Your task to perform on an android device: toggle data saver in the chrome app Image 0: 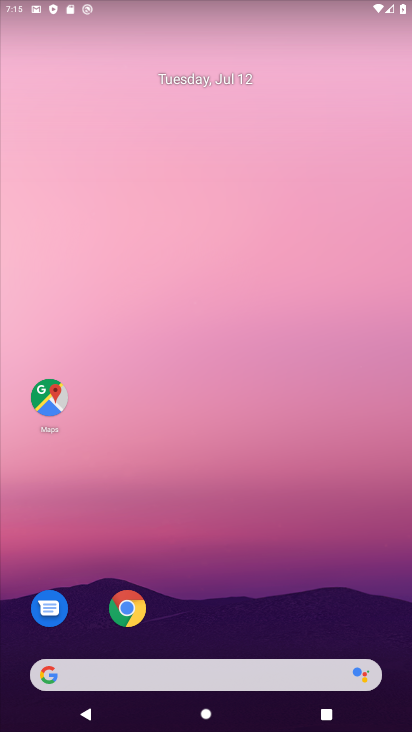
Step 0: click (125, 605)
Your task to perform on an android device: toggle data saver in the chrome app Image 1: 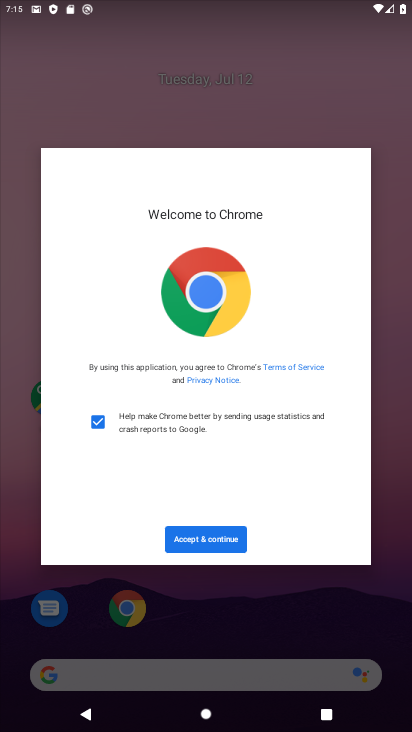
Step 1: click (216, 539)
Your task to perform on an android device: toggle data saver in the chrome app Image 2: 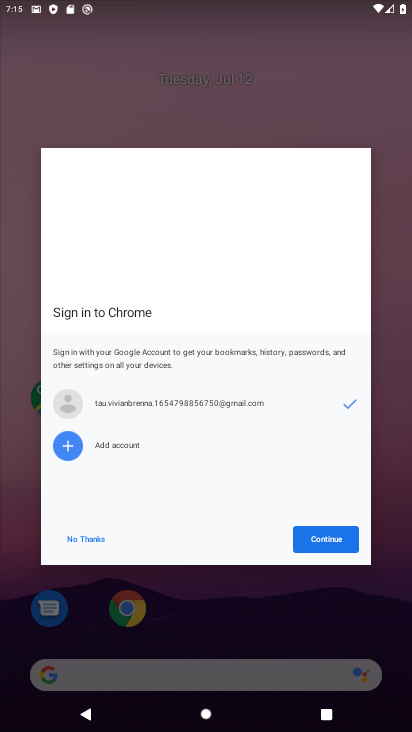
Step 2: click (347, 545)
Your task to perform on an android device: toggle data saver in the chrome app Image 3: 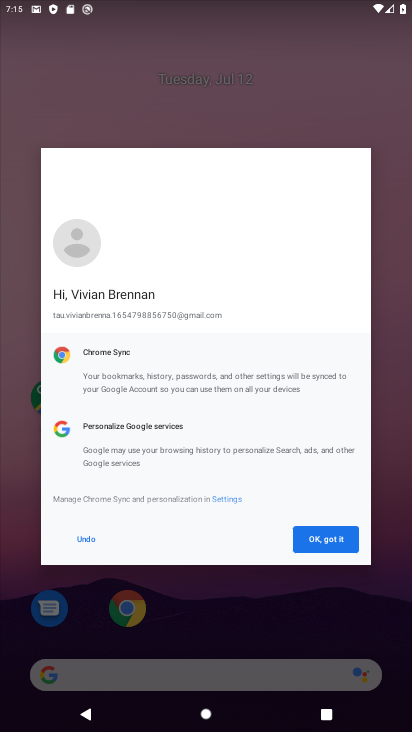
Step 3: click (347, 545)
Your task to perform on an android device: toggle data saver in the chrome app Image 4: 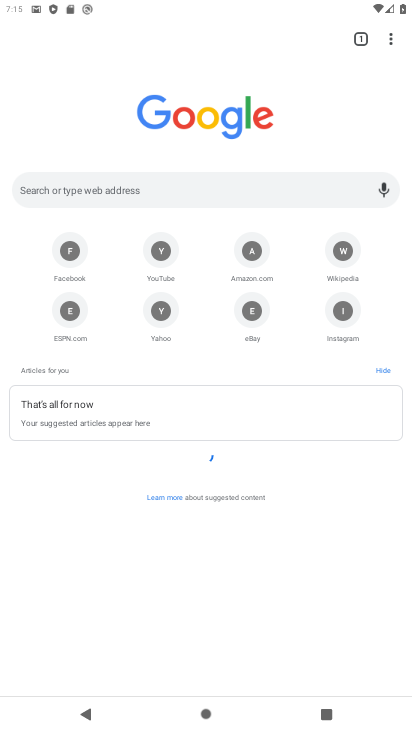
Step 4: drag from (391, 39) to (298, 325)
Your task to perform on an android device: toggle data saver in the chrome app Image 5: 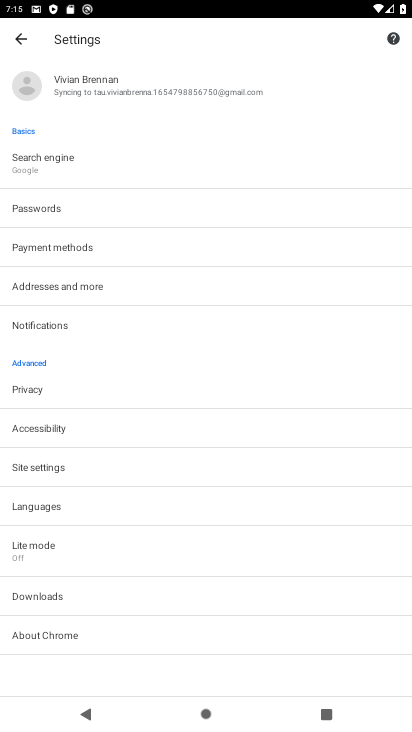
Step 5: click (49, 557)
Your task to perform on an android device: toggle data saver in the chrome app Image 6: 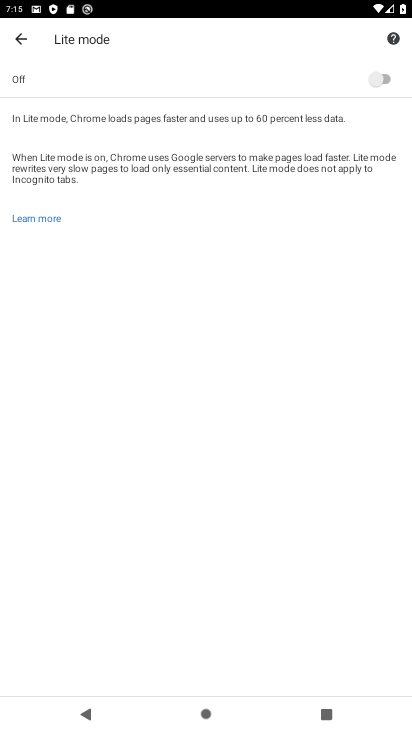
Step 6: click (374, 78)
Your task to perform on an android device: toggle data saver in the chrome app Image 7: 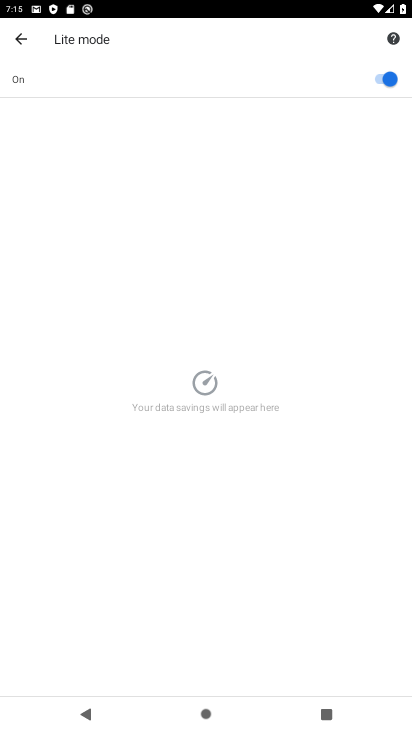
Step 7: task complete